Your task to perform on an android device: turn notification dots off Image 0: 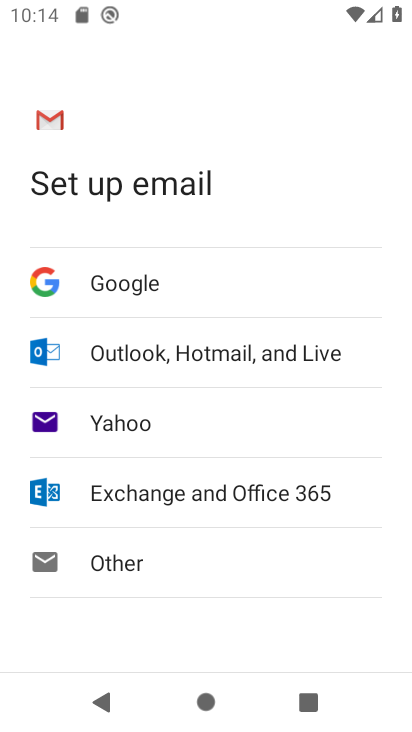
Step 0: press home button
Your task to perform on an android device: turn notification dots off Image 1: 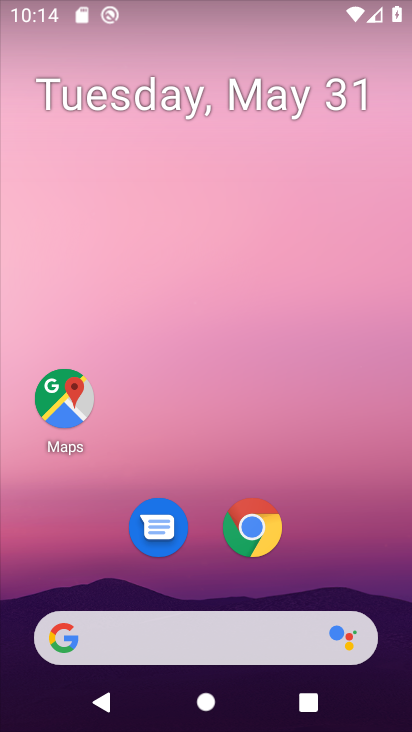
Step 1: drag from (337, 550) to (231, 66)
Your task to perform on an android device: turn notification dots off Image 2: 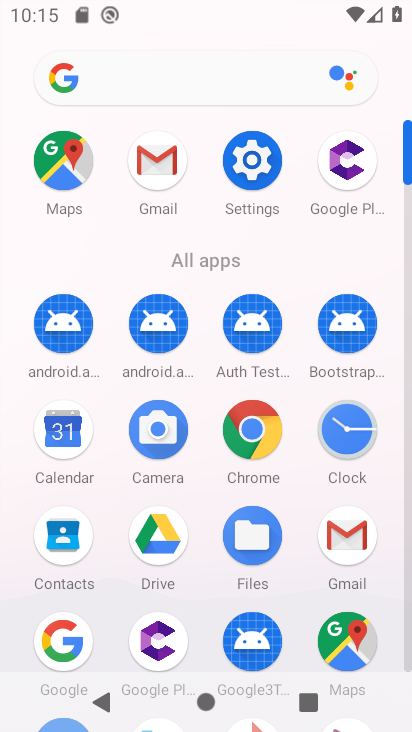
Step 2: click (253, 166)
Your task to perform on an android device: turn notification dots off Image 3: 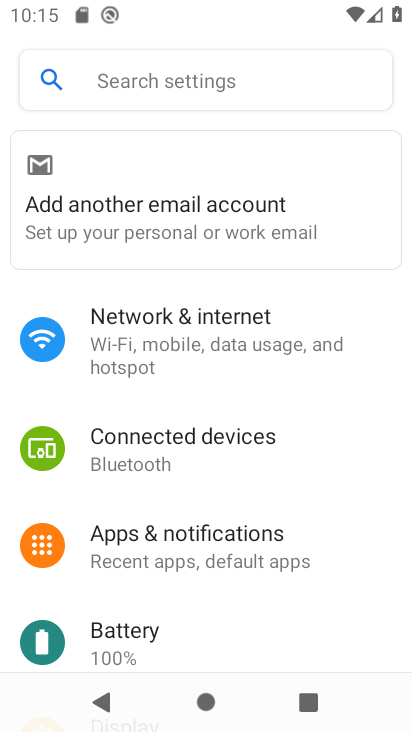
Step 3: click (200, 548)
Your task to perform on an android device: turn notification dots off Image 4: 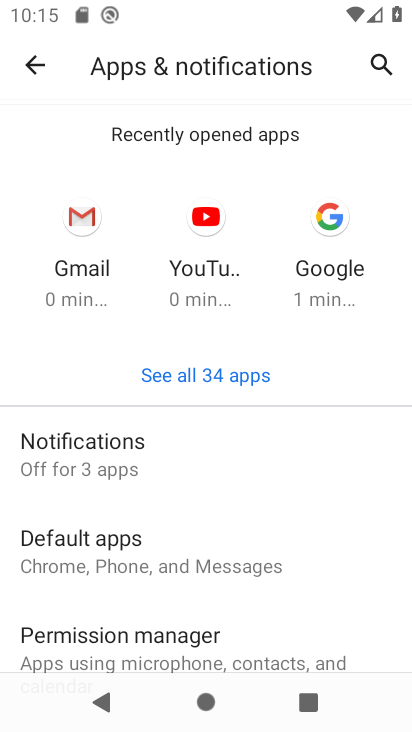
Step 4: click (171, 461)
Your task to perform on an android device: turn notification dots off Image 5: 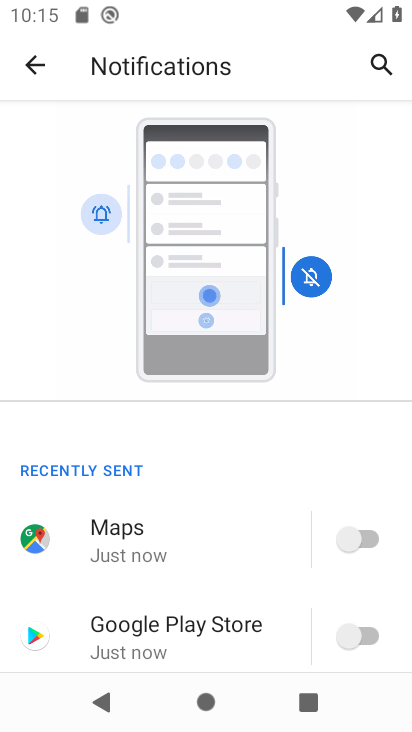
Step 5: drag from (186, 580) to (264, 61)
Your task to perform on an android device: turn notification dots off Image 6: 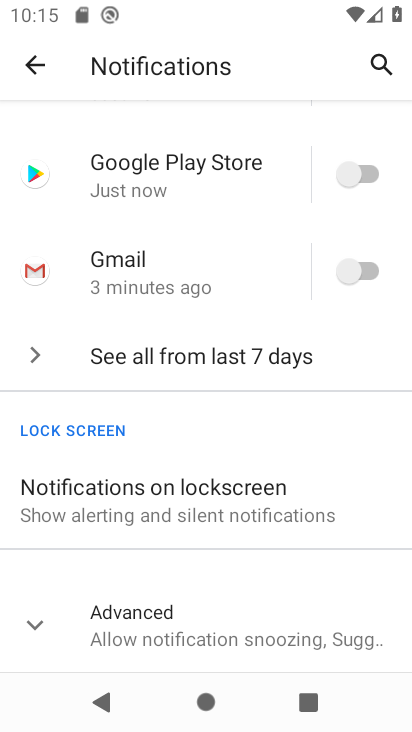
Step 6: drag from (189, 569) to (230, 301)
Your task to perform on an android device: turn notification dots off Image 7: 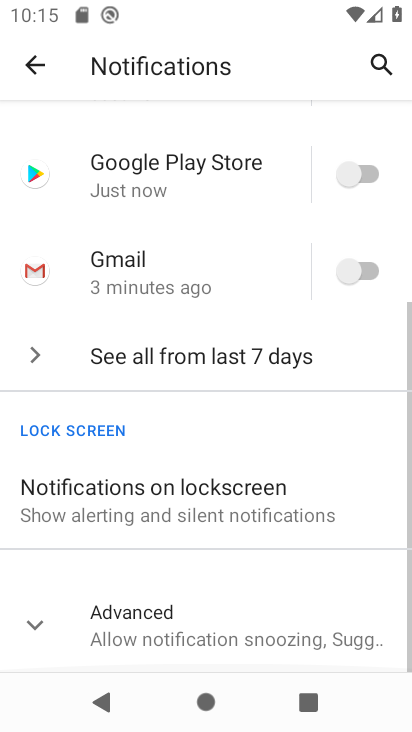
Step 7: click (158, 621)
Your task to perform on an android device: turn notification dots off Image 8: 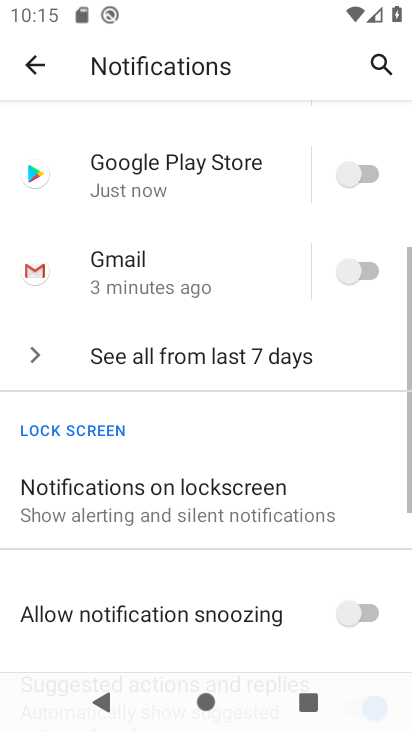
Step 8: drag from (259, 619) to (302, 182)
Your task to perform on an android device: turn notification dots off Image 9: 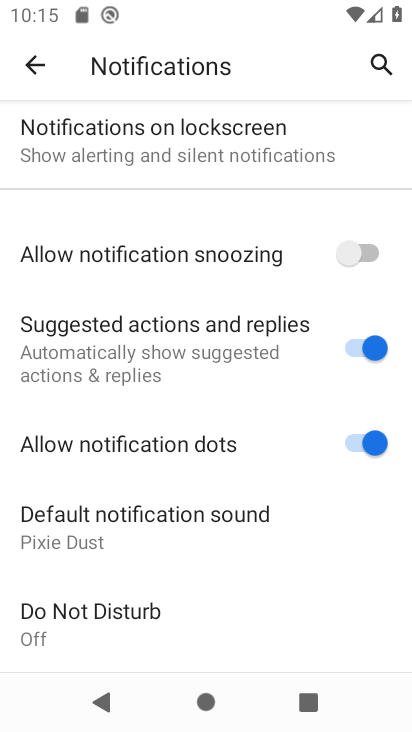
Step 9: click (370, 453)
Your task to perform on an android device: turn notification dots off Image 10: 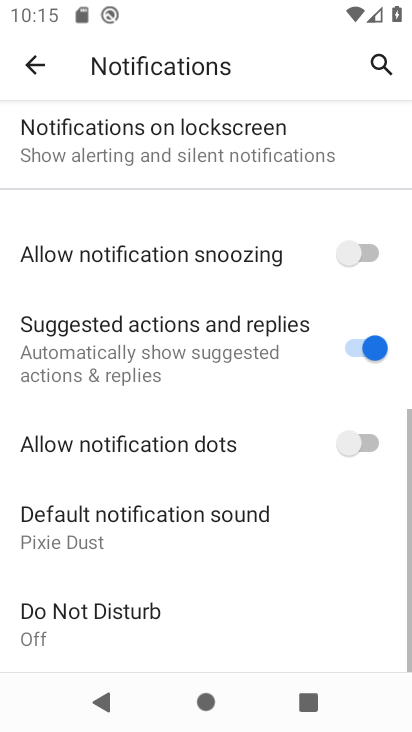
Step 10: task complete